Your task to perform on an android device: set the stopwatch Image 0: 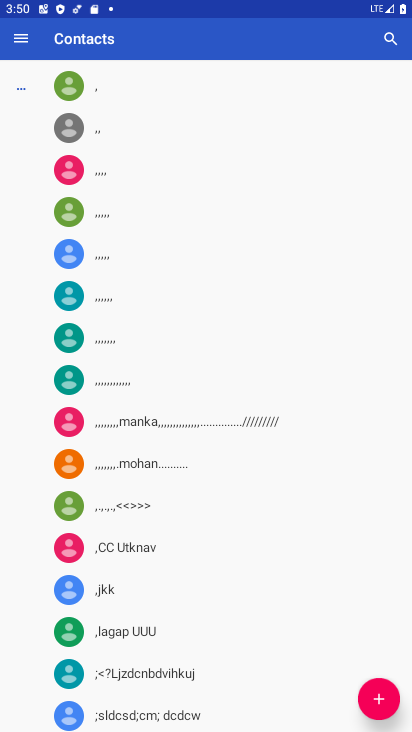
Step 0: drag from (282, 514) to (353, 146)
Your task to perform on an android device: set the stopwatch Image 1: 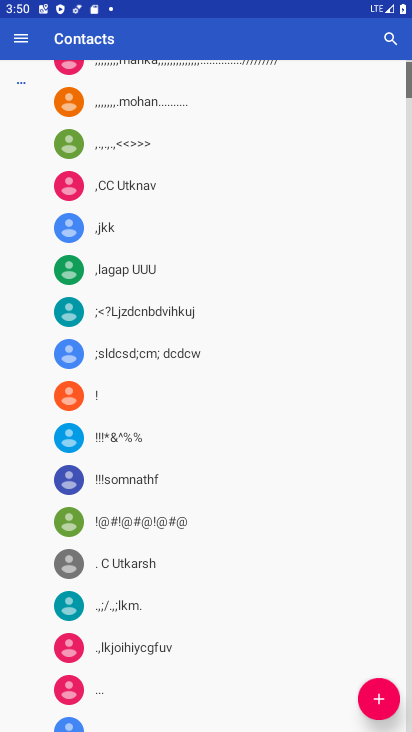
Step 1: press back button
Your task to perform on an android device: set the stopwatch Image 2: 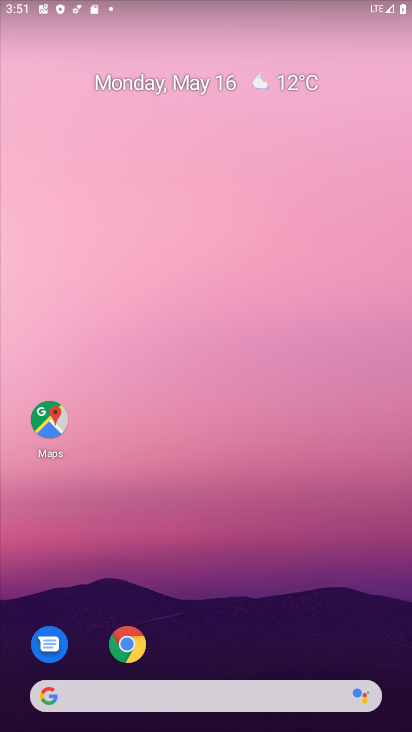
Step 2: drag from (314, 576) to (397, 102)
Your task to perform on an android device: set the stopwatch Image 3: 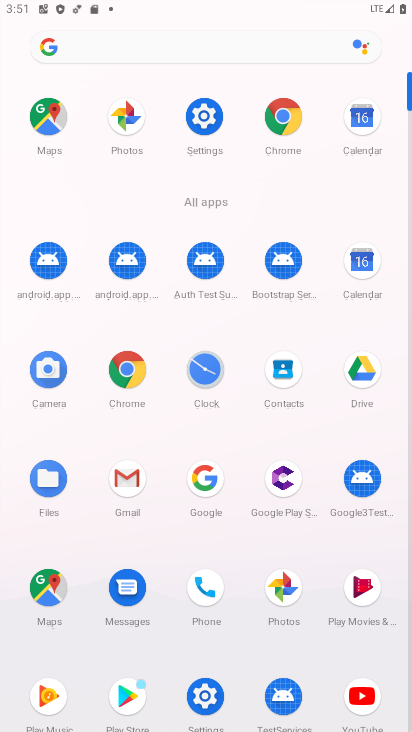
Step 3: click (209, 366)
Your task to perform on an android device: set the stopwatch Image 4: 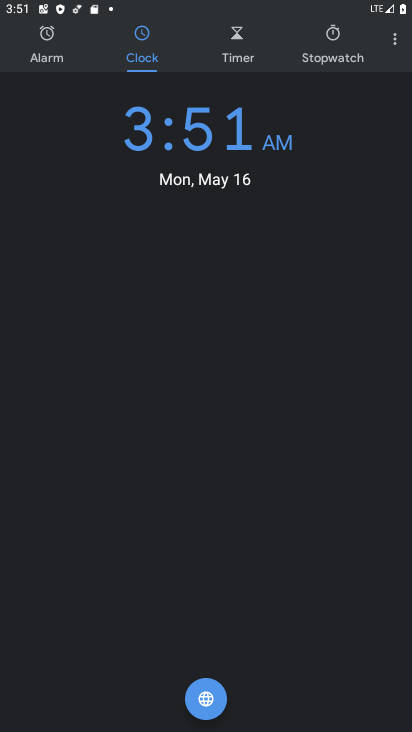
Step 4: click (340, 50)
Your task to perform on an android device: set the stopwatch Image 5: 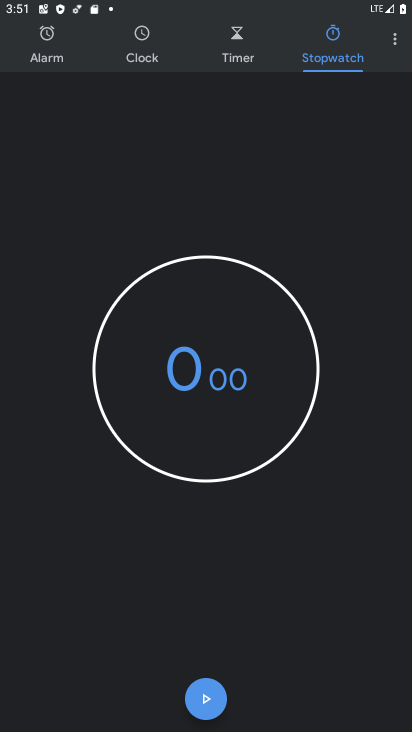
Step 5: task complete